Your task to perform on an android device: turn on translation in the chrome app Image 0: 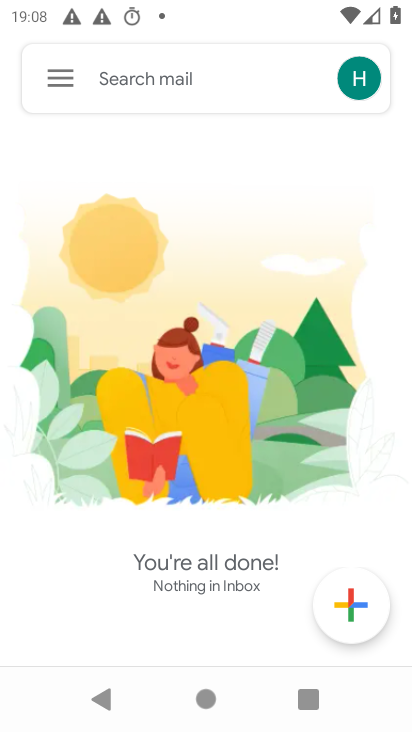
Step 0: press home button
Your task to perform on an android device: turn on translation in the chrome app Image 1: 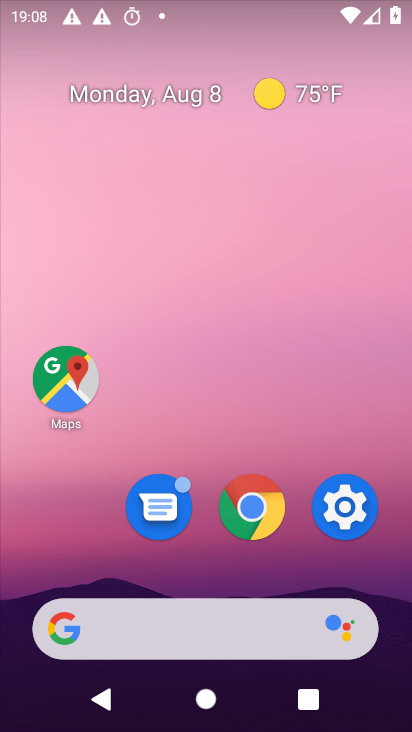
Step 1: drag from (297, 661) to (301, 94)
Your task to perform on an android device: turn on translation in the chrome app Image 2: 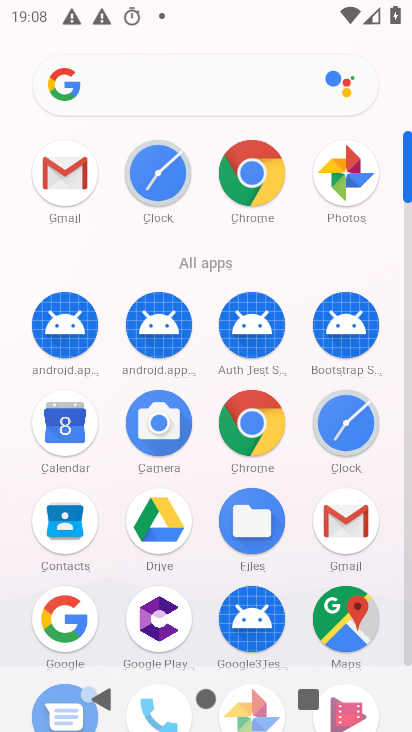
Step 2: click (257, 181)
Your task to perform on an android device: turn on translation in the chrome app Image 3: 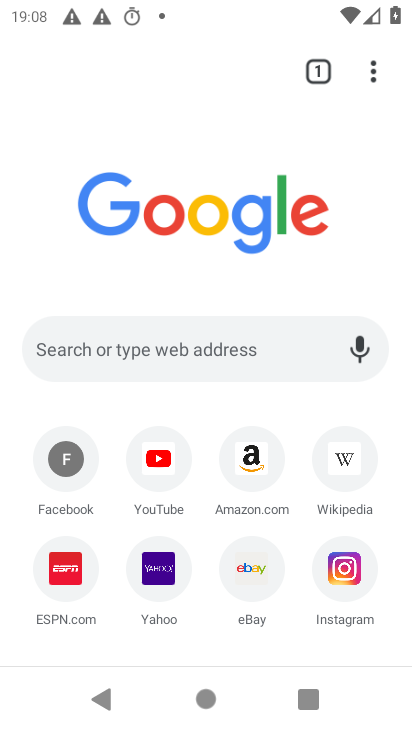
Step 3: click (363, 69)
Your task to perform on an android device: turn on translation in the chrome app Image 4: 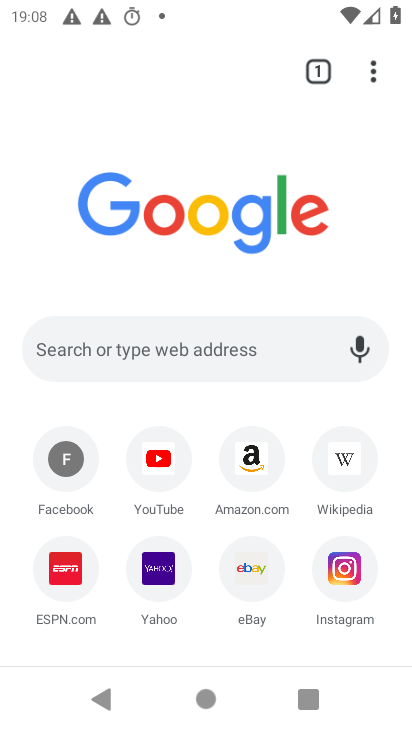
Step 4: click (369, 78)
Your task to perform on an android device: turn on translation in the chrome app Image 5: 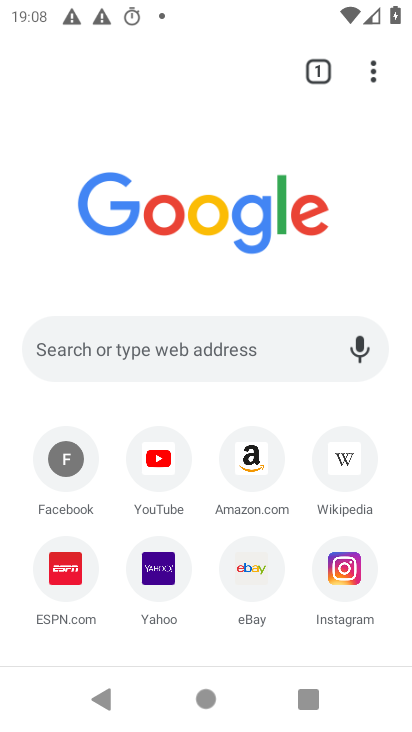
Step 5: click (367, 80)
Your task to perform on an android device: turn on translation in the chrome app Image 6: 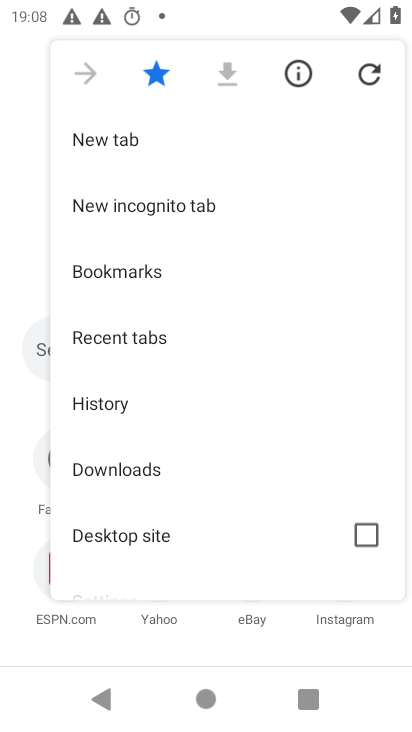
Step 6: drag from (178, 538) to (194, 249)
Your task to perform on an android device: turn on translation in the chrome app Image 7: 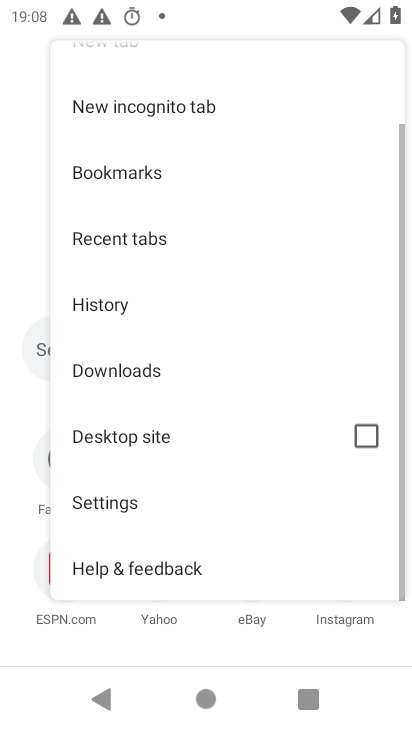
Step 7: click (140, 513)
Your task to perform on an android device: turn on translation in the chrome app Image 8: 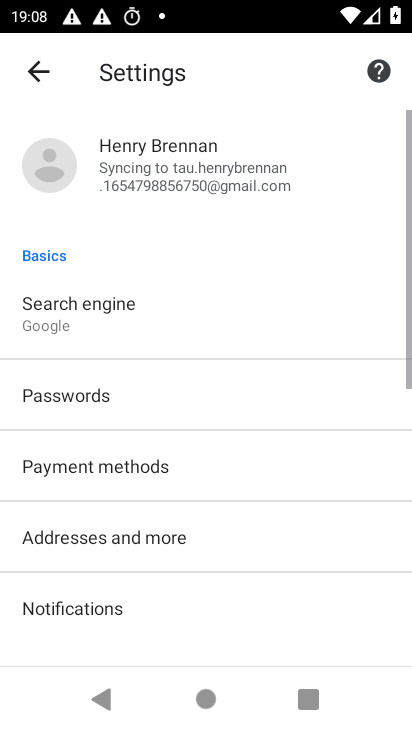
Step 8: drag from (123, 570) to (174, 217)
Your task to perform on an android device: turn on translation in the chrome app Image 9: 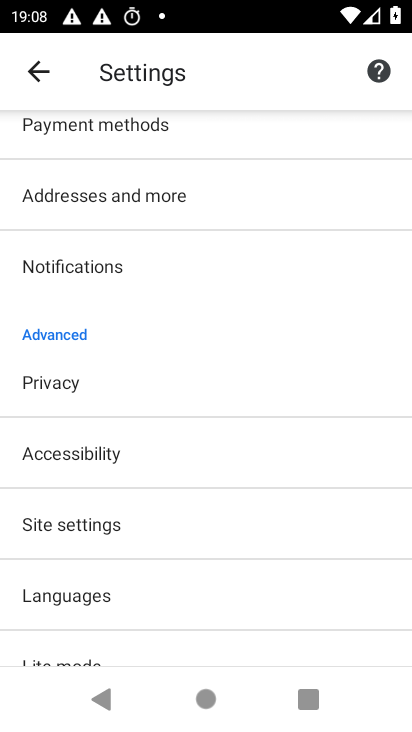
Step 9: click (88, 592)
Your task to perform on an android device: turn on translation in the chrome app Image 10: 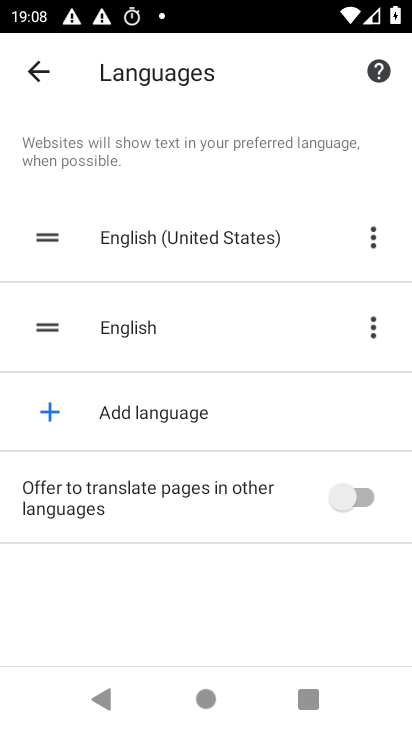
Step 10: click (365, 477)
Your task to perform on an android device: turn on translation in the chrome app Image 11: 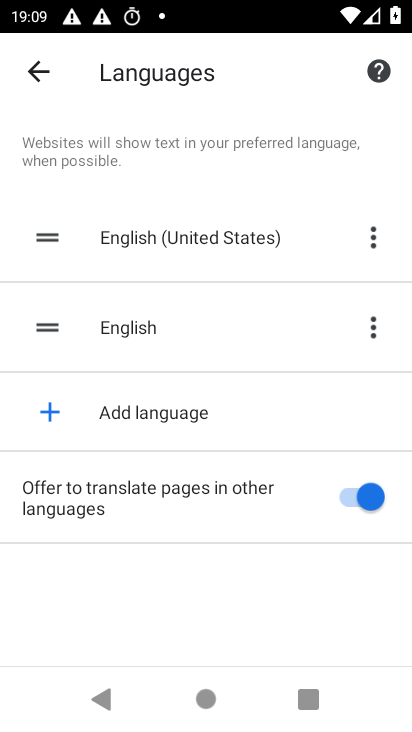
Step 11: task complete